Your task to perform on an android device: Open calendar and show me the third week of next month Image 0: 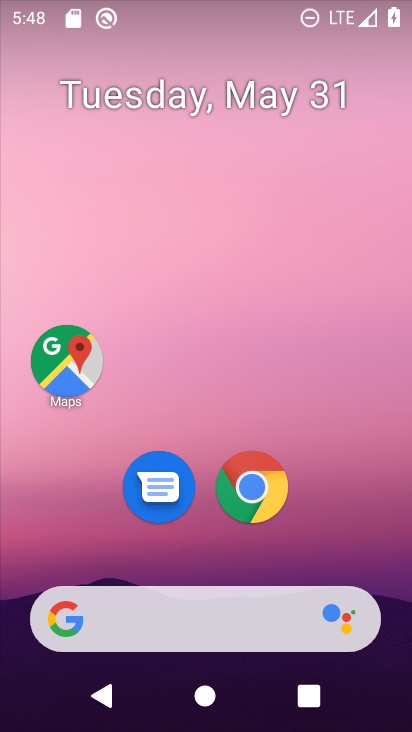
Step 0: drag from (367, 539) to (270, 118)
Your task to perform on an android device: Open calendar and show me the third week of next month Image 1: 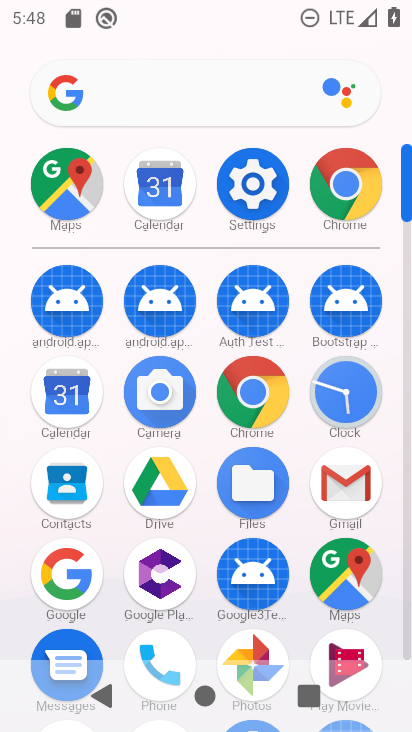
Step 1: click (64, 387)
Your task to perform on an android device: Open calendar and show me the third week of next month Image 2: 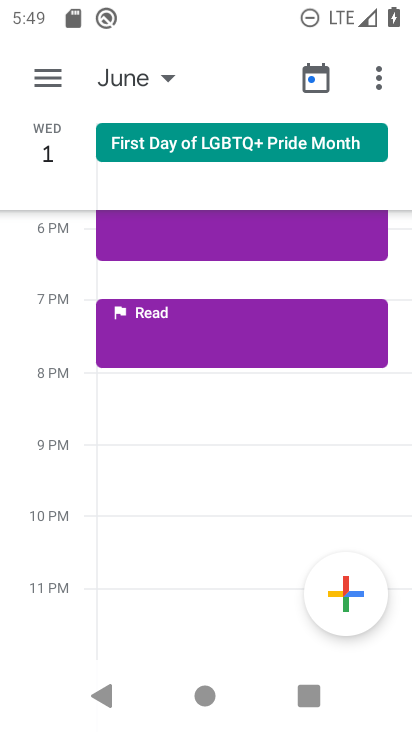
Step 2: click (39, 74)
Your task to perform on an android device: Open calendar and show me the third week of next month Image 3: 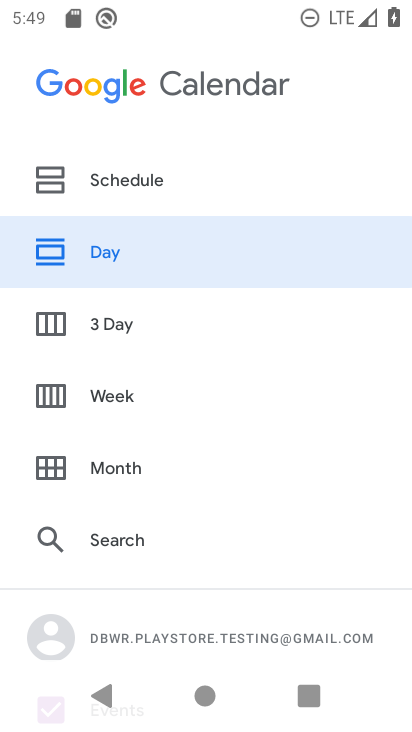
Step 3: click (106, 398)
Your task to perform on an android device: Open calendar and show me the third week of next month Image 4: 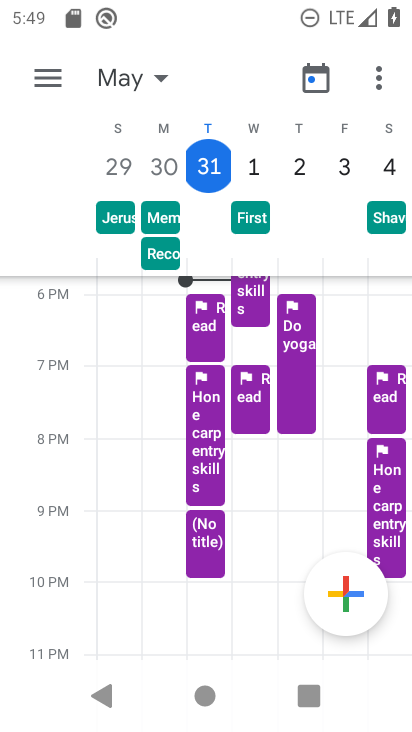
Step 4: click (163, 75)
Your task to perform on an android device: Open calendar and show me the third week of next month Image 5: 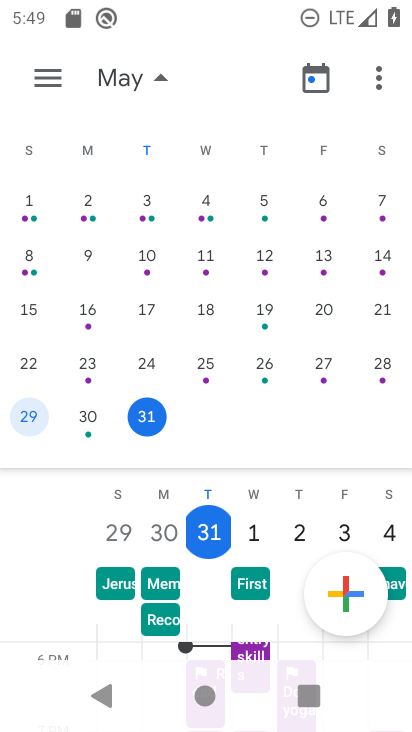
Step 5: drag from (363, 255) to (41, 237)
Your task to perform on an android device: Open calendar and show me the third week of next month Image 6: 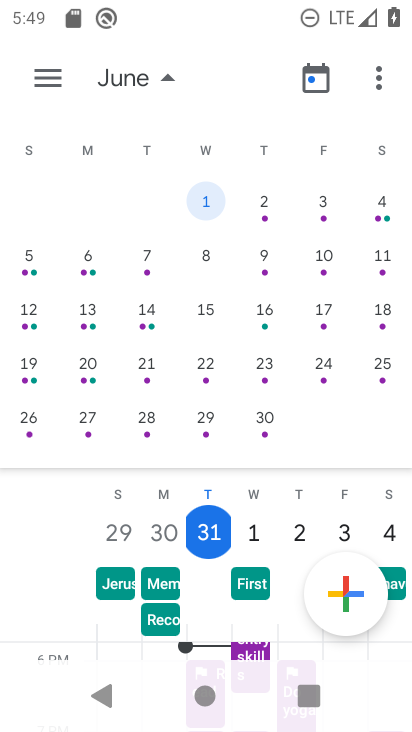
Step 6: click (209, 310)
Your task to perform on an android device: Open calendar and show me the third week of next month Image 7: 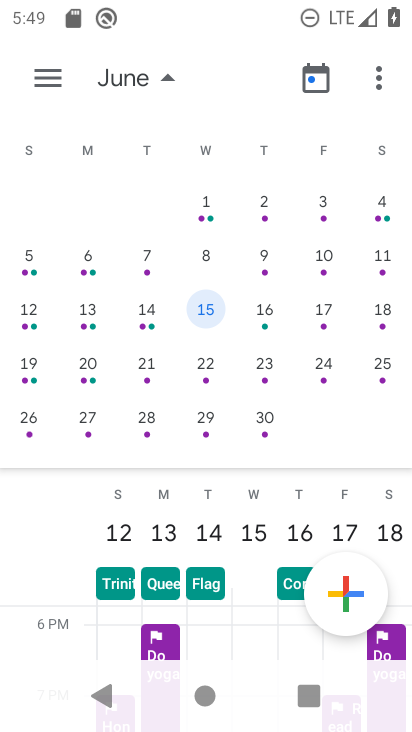
Step 7: task complete